Your task to perform on an android device: Open Google Image 0: 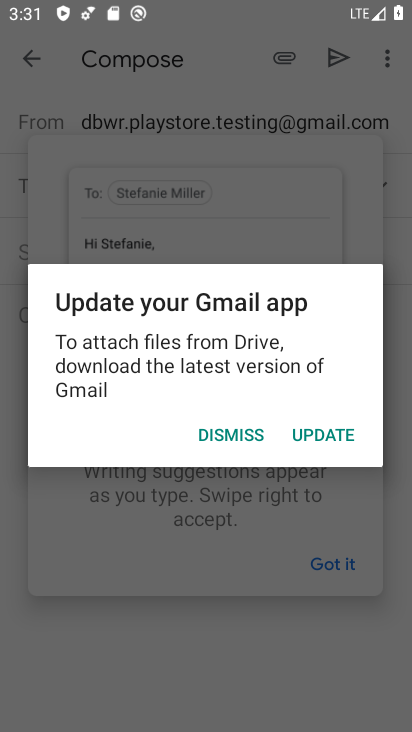
Step 0: press home button
Your task to perform on an android device: Open Google Image 1: 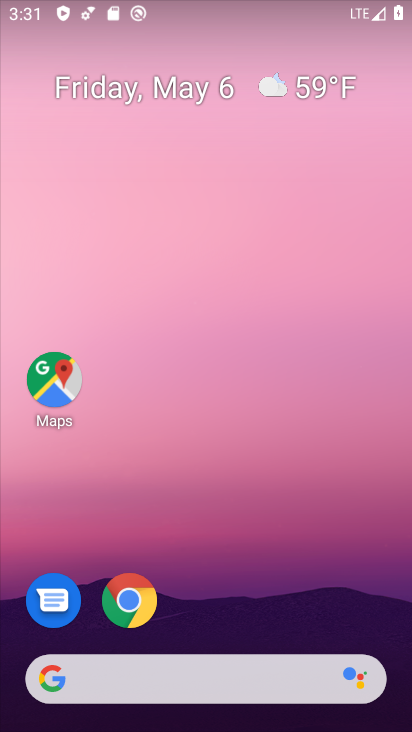
Step 1: click (226, 673)
Your task to perform on an android device: Open Google Image 2: 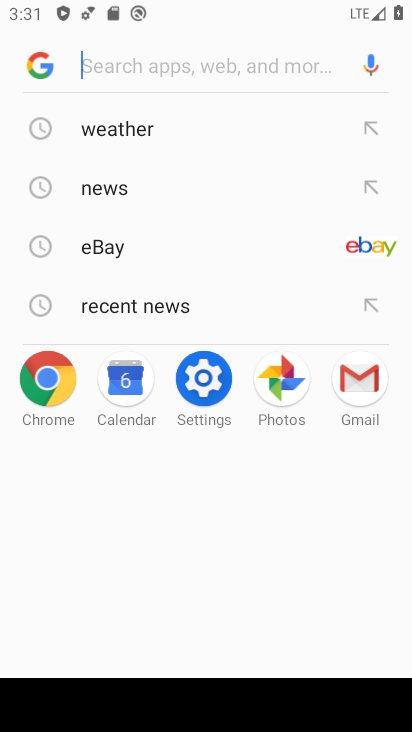
Step 2: click (36, 70)
Your task to perform on an android device: Open Google Image 3: 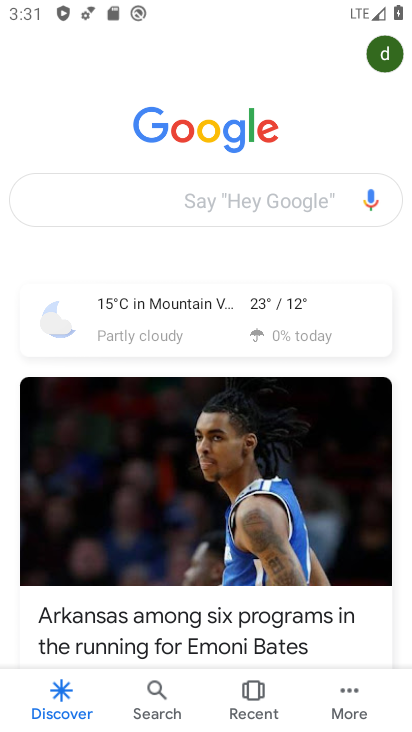
Step 3: task complete